Your task to perform on an android device: Go to Yahoo.com Image 0: 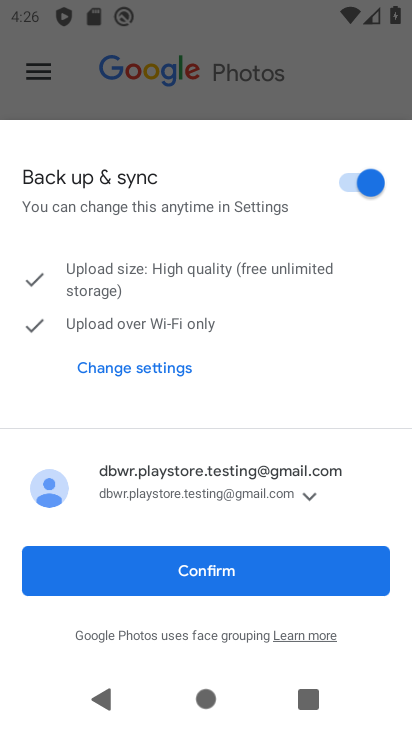
Step 0: click (359, 560)
Your task to perform on an android device: Go to Yahoo.com Image 1: 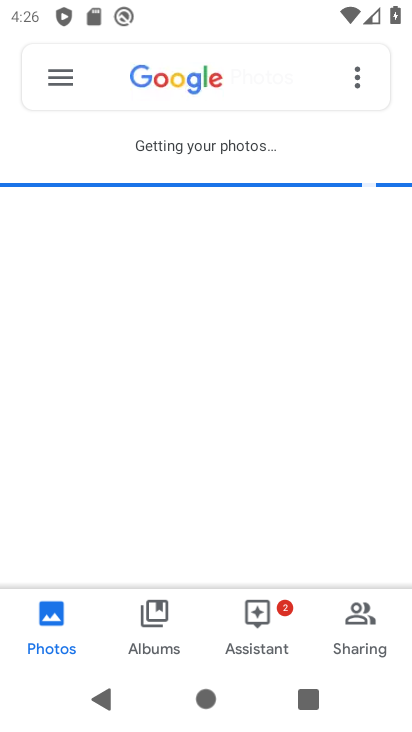
Step 1: press home button
Your task to perform on an android device: Go to Yahoo.com Image 2: 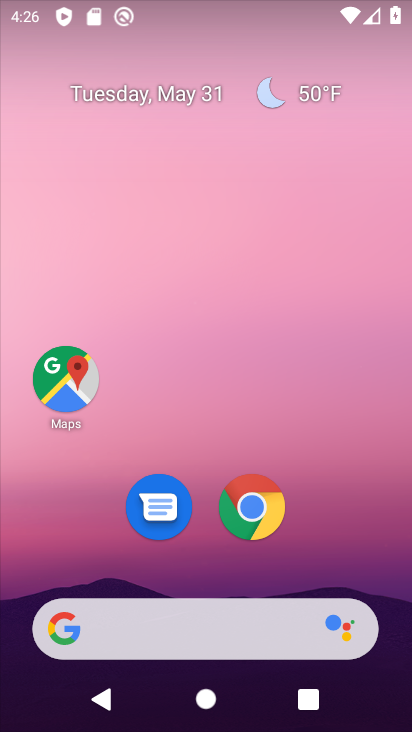
Step 2: click (278, 623)
Your task to perform on an android device: Go to Yahoo.com Image 3: 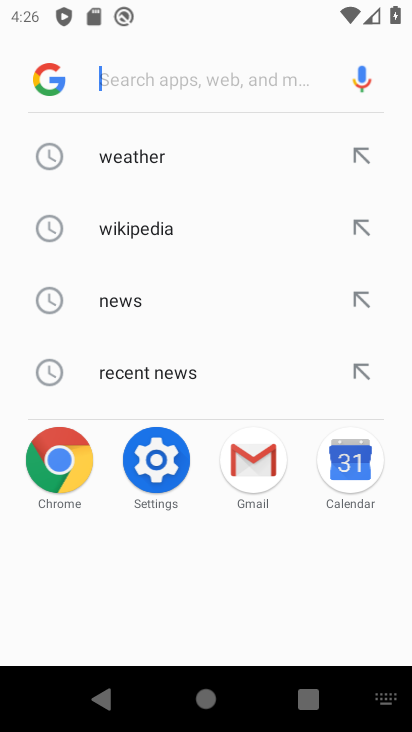
Step 3: type "yahoo.com"
Your task to perform on an android device: Go to Yahoo.com Image 4: 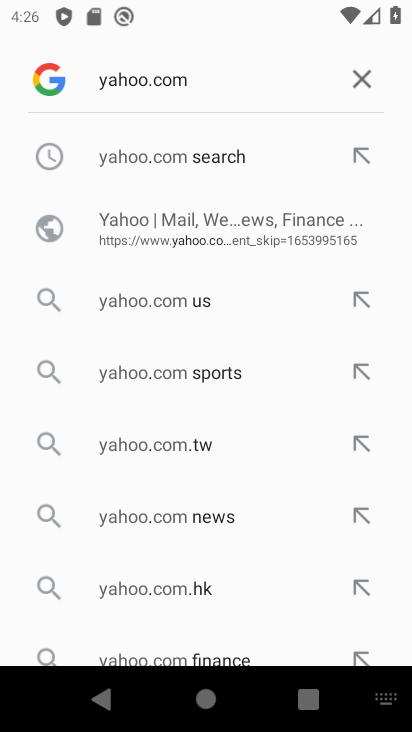
Step 4: click (181, 150)
Your task to perform on an android device: Go to Yahoo.com Image 5: 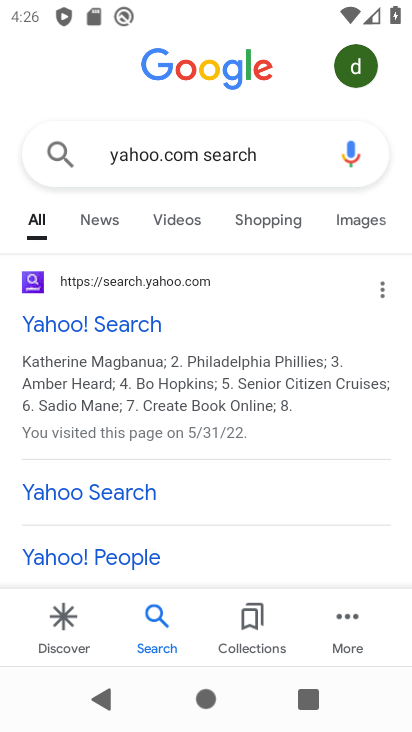
Step 5: click (104, 321)
Your task to perform on an android device: Go to Yahoo.com Image 6: 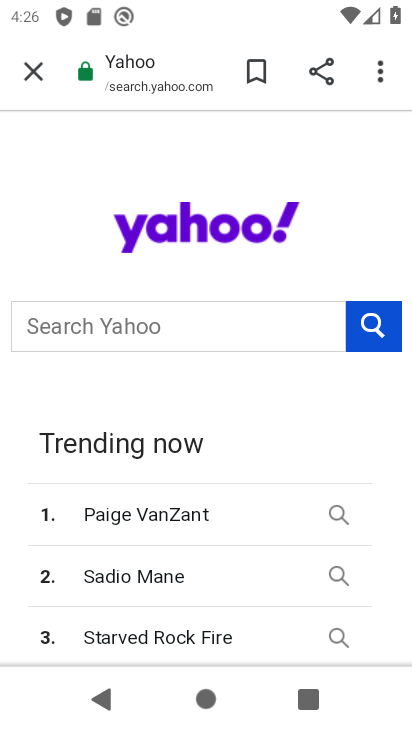
Step 6: click (258, 233)
Your task to perform on an android device: Go to Yahoo.com Image 7: 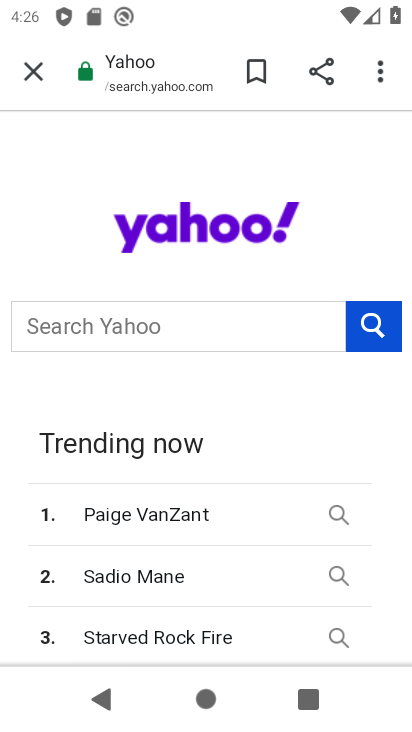
Step 7: task complete